Your task to perform on an android device: Go to Yahoo.com Image 0: 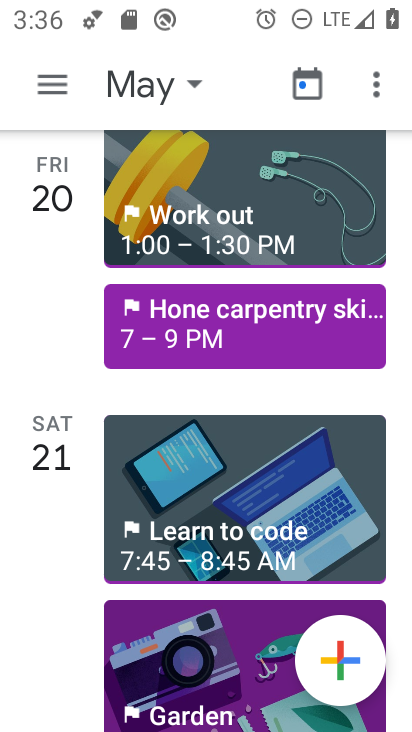
Step 0: press home button
Your task to perform on an android device: Go to Yahoo.com Image 1: 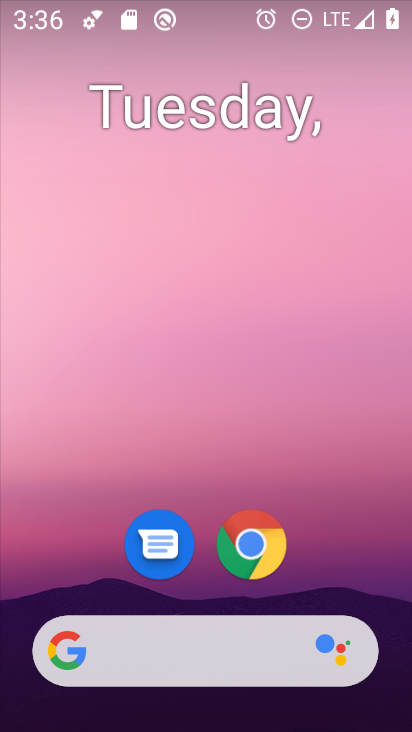
Step 1: drag from (352, 569) to (359, 152)
Your task to perform on an android device: Go to Yahoo.com Image 2: 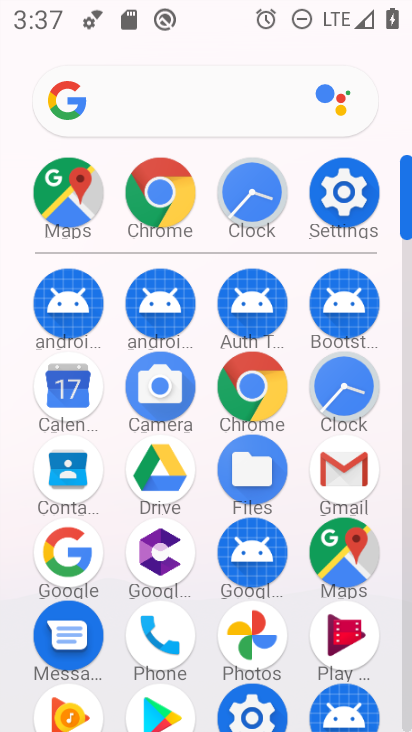
Step 2: click (263, 405)
Your task to perform on an android device: Go to Yahoo.com Image 3: 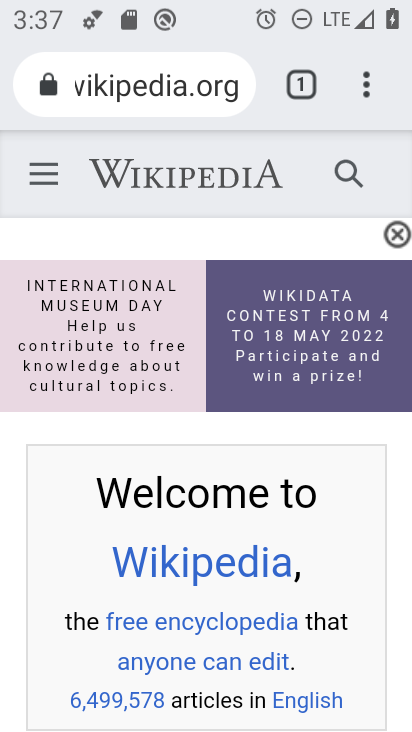
Step 3: press back button
Your task to perform on an android device: Go to Yahoo.com Image 4: 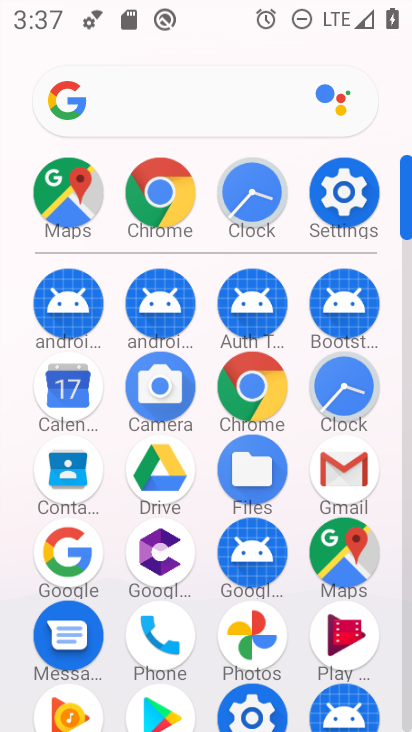
Step 4: click (269, 395)
Your task to perform on an android device: Go to Yahoo.com Image 5: 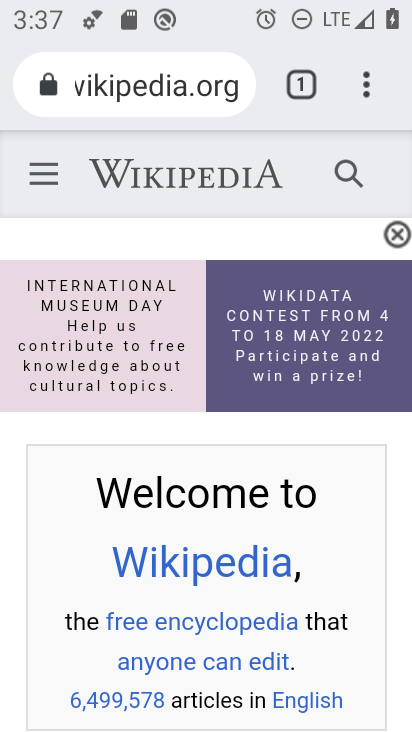
Step 5: click (196, 85)
Your task to perform on an android device: Go to Yahoo.com Image 6: 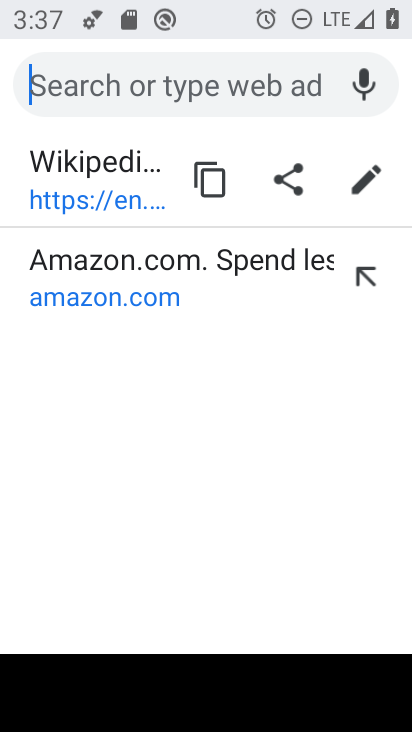
Step 6: type "yahoo.com"
Your task to perform on an android device: Go to Yahoo.com Image 7: 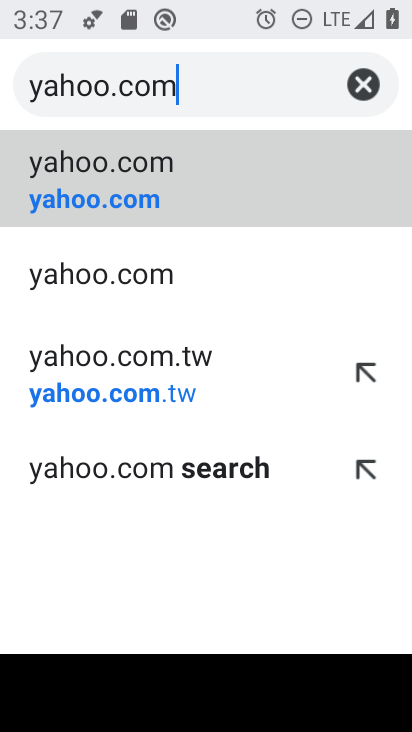
Step 7: click (178, 170)
Your task to perform on an android device: Go to Yahoo.com Image 8: 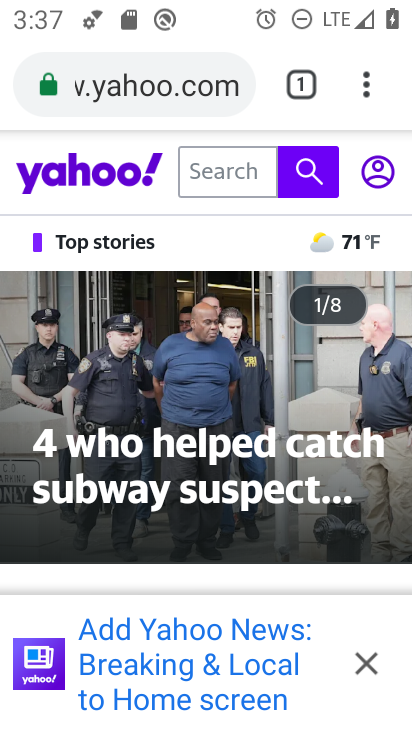
Step 8: task complete